Your task to perform on an android device: Add "usb-c to usb-b" to the cart on newegg Image 0: 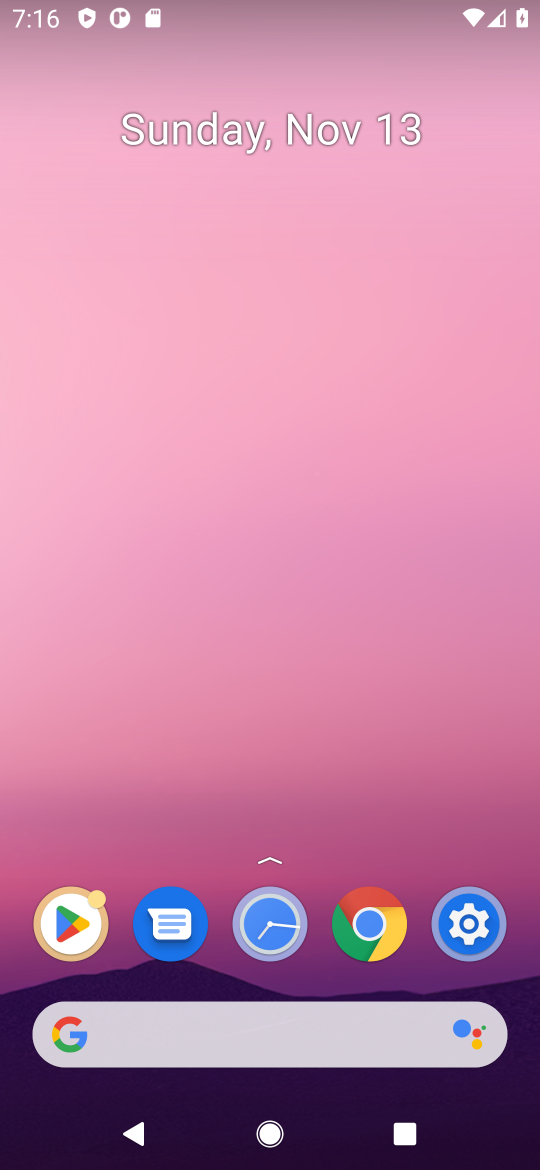
Step 0: click (345, 917)
Your task to perform on an android device: Add "usb-c to usb-b" to the cart on newegg Image 1: 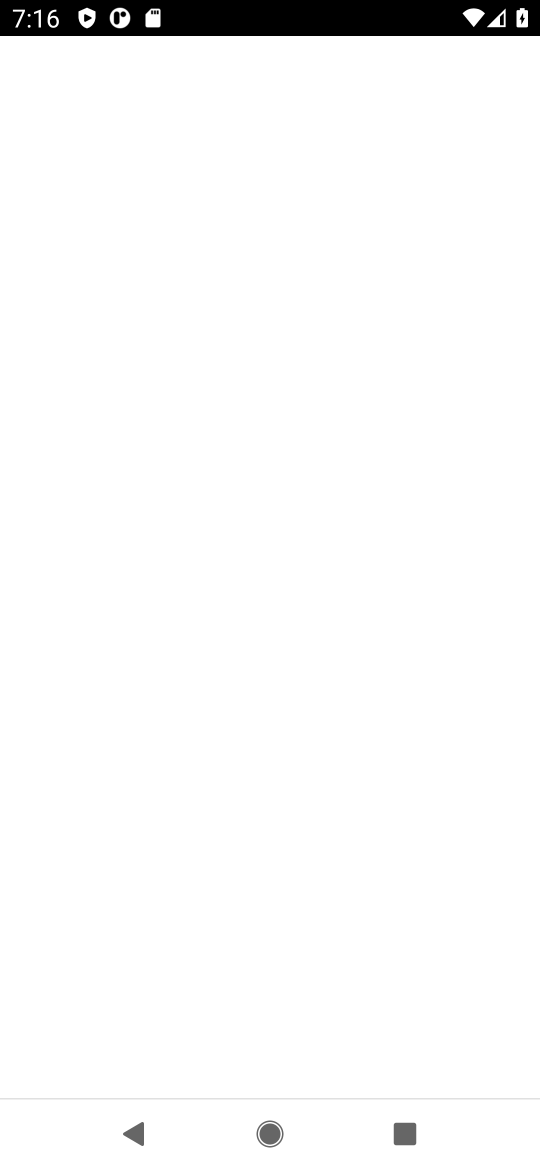
Step 1: click (343, 919)
Your task to perform on an android device: Add "usb-c to usb-b" to the cart on newegg Image 2: 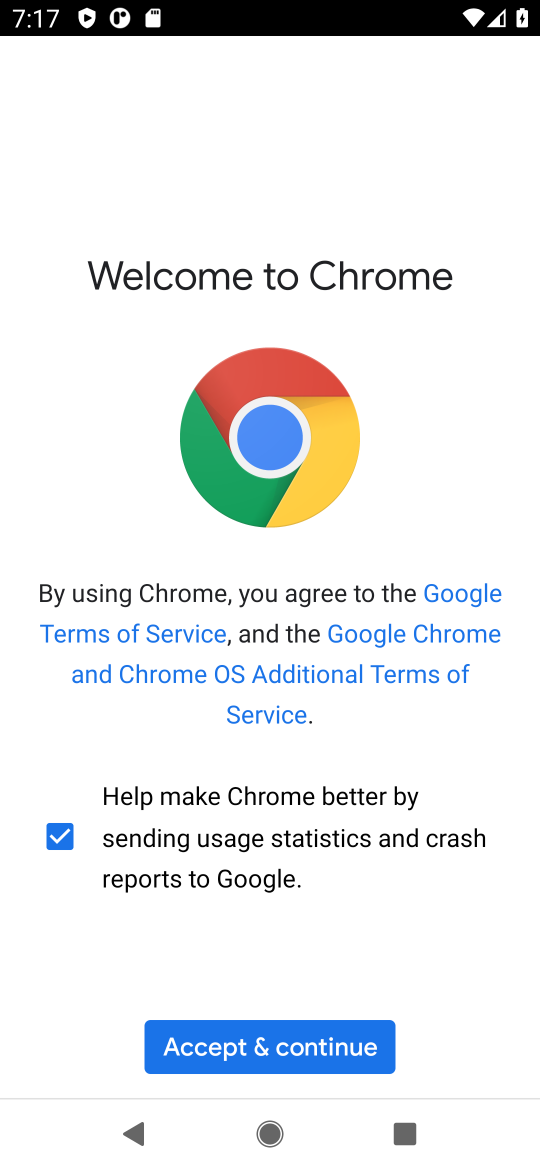
Step 2: click (247, 1036)
Your task to perform on an android device: Add "usb-c to usb-b" to the cart on newegg Image 3: 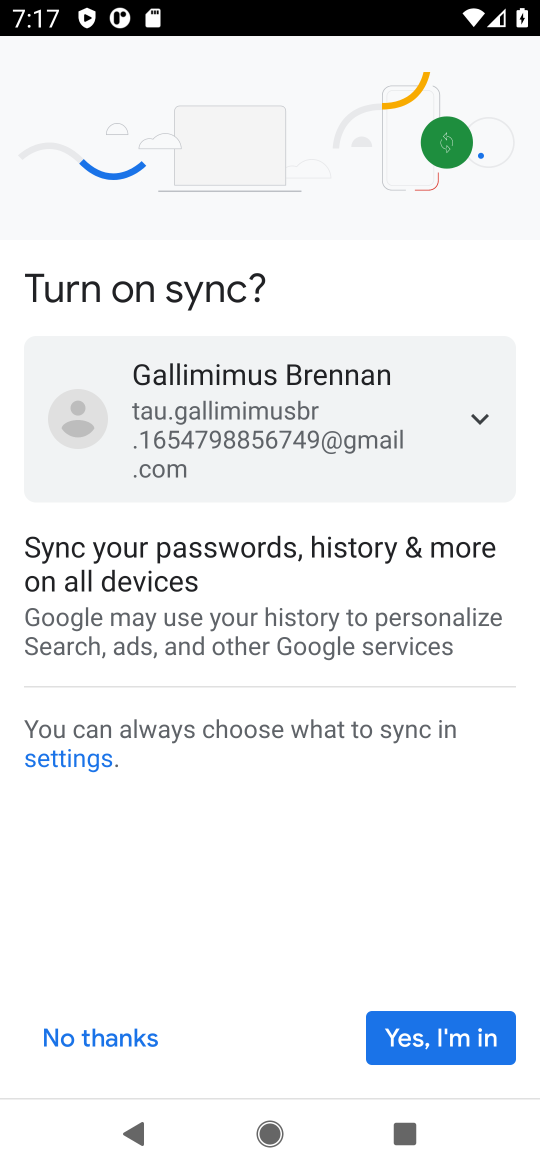
Step 3: click (421, 1039)
Your task to perform on an android device: Add "usb-c to usb-b" to the cart on newegg Image 4: 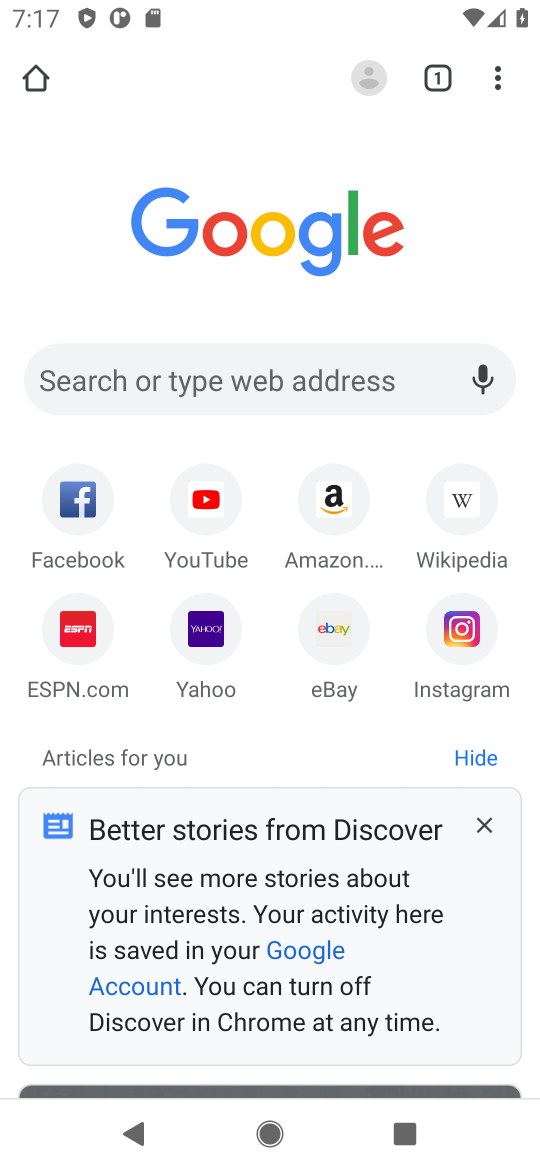
Step 4: click (214, 374)
Your task to perform on an android device: Add "usb-c to usb-b" to the cart on newegg Image 5: 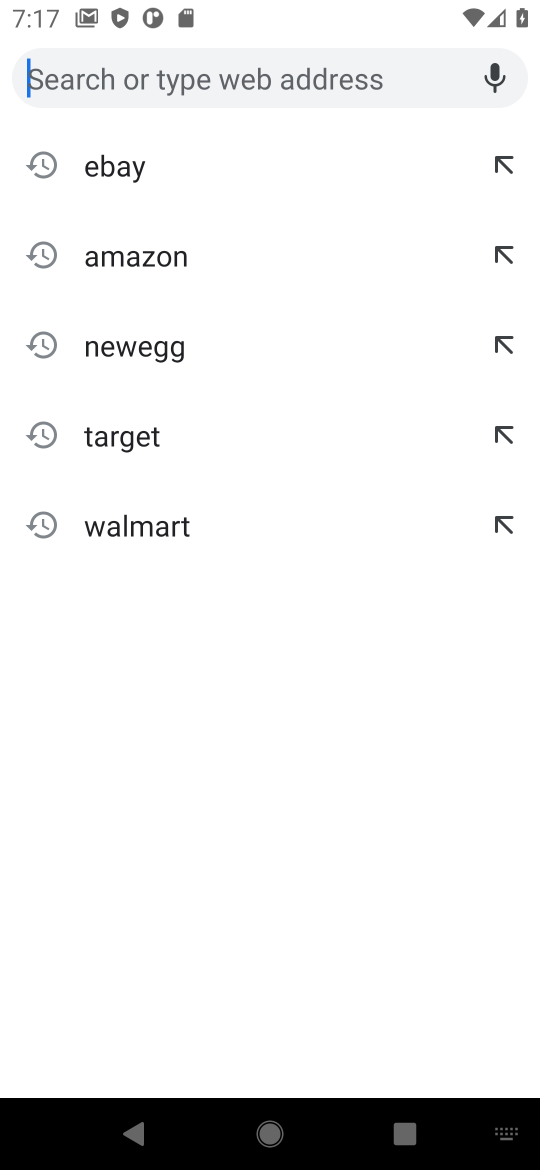
Step 5: click (130, 345)
Your task to perform on an android device: Add "usb-c to usb-b" to the cart on newegg Image 6: 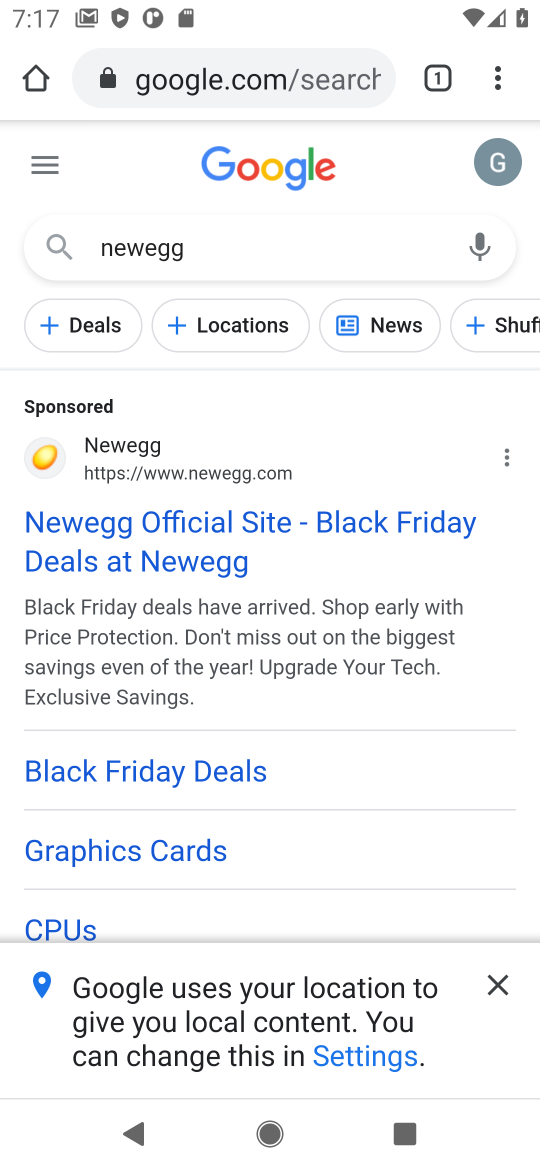
Step 6: click (502, 974)
Your task to perform on an android device: Add "usb-c to usb-b" to the cart on newegg Image 7: 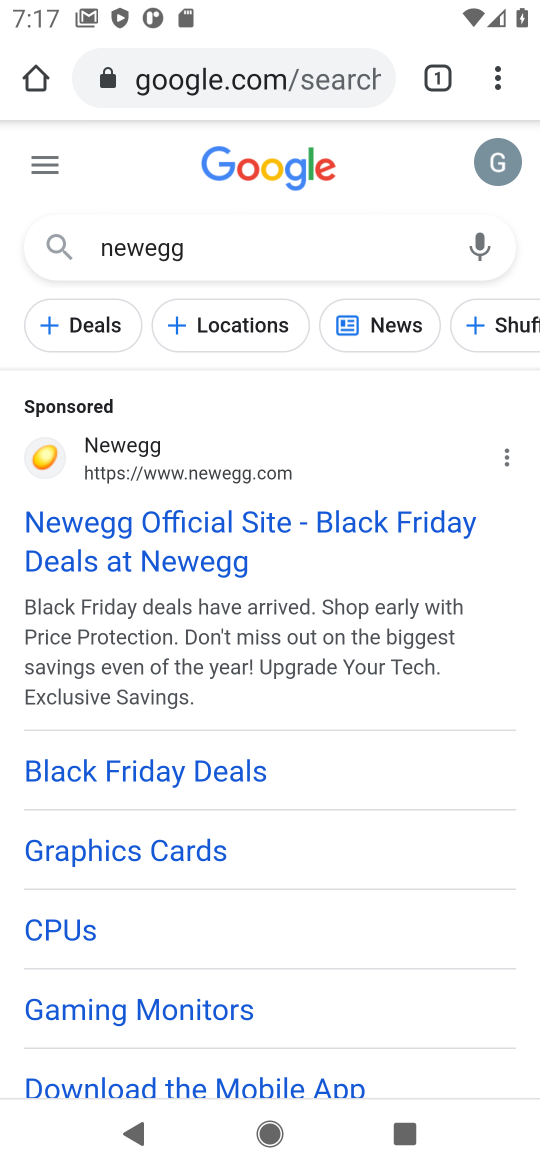
Step 7: drag from (230, 751) to (336, 181)
Your task to perform on an android device: Add "usb-c to usb-b" to the cart on newegg Image 8: 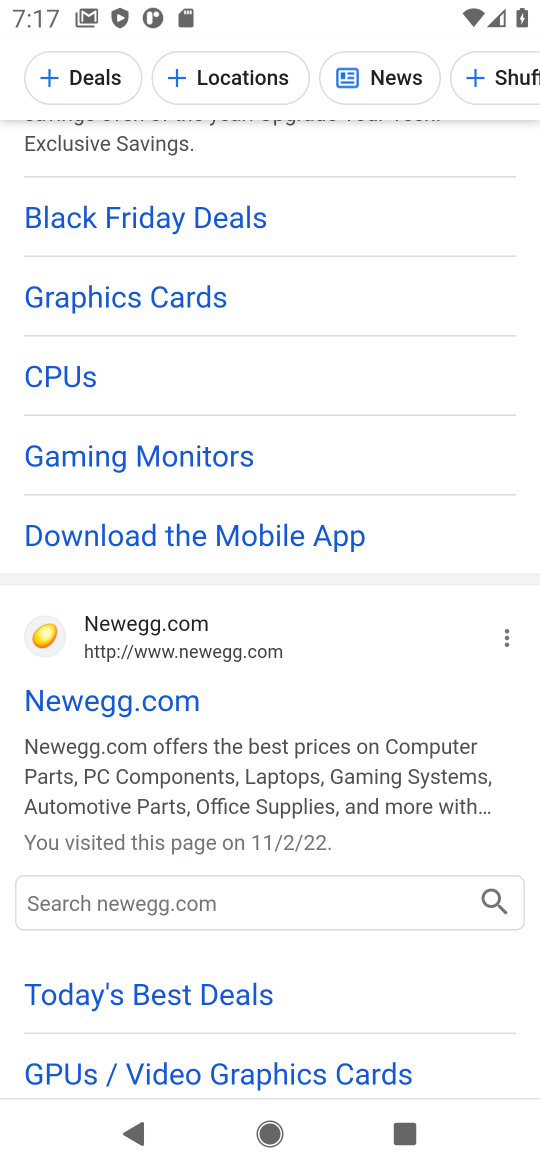
Step 8: click (124, 697)
Your task to perform on an android device: Add "usb-c to usb-b" to the cart on newegg Image 9: 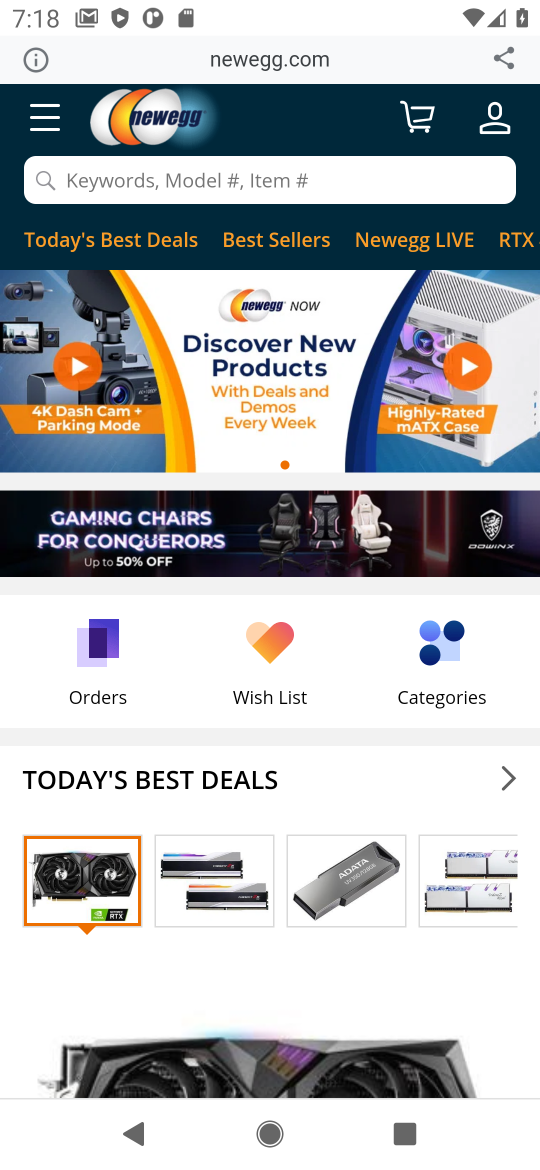
Step 9: click (204, 170)
Your task to perform on an android device: Add "usb-c to usb-b" to the cart on newegg Image 10: 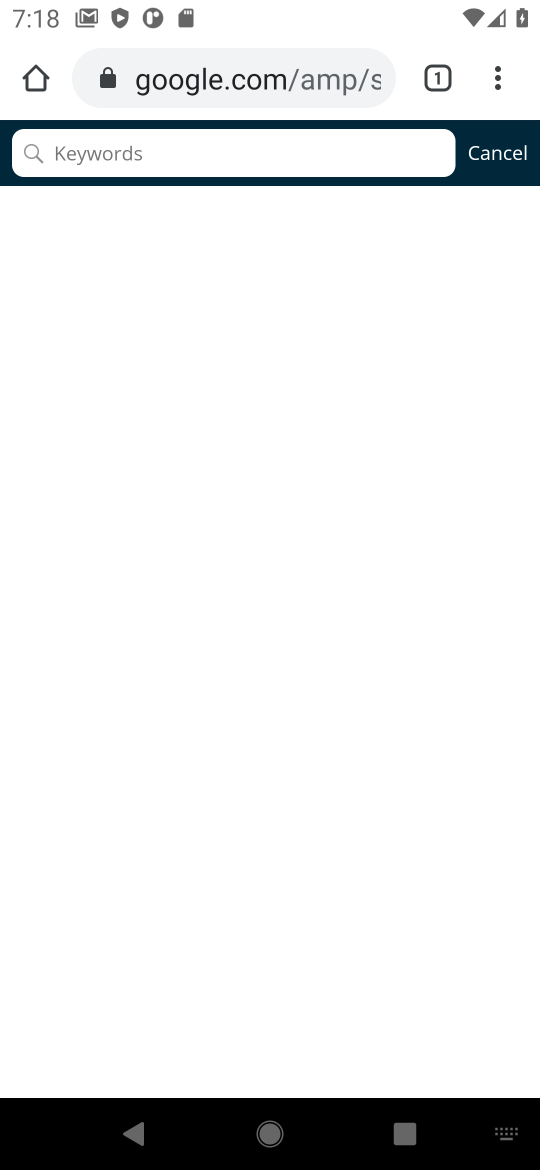
Step 10: type "usb-c to usb-b"
Your task to perform on an android device: Add "usb-c to usb-b" to the cart on newegg Image 11: 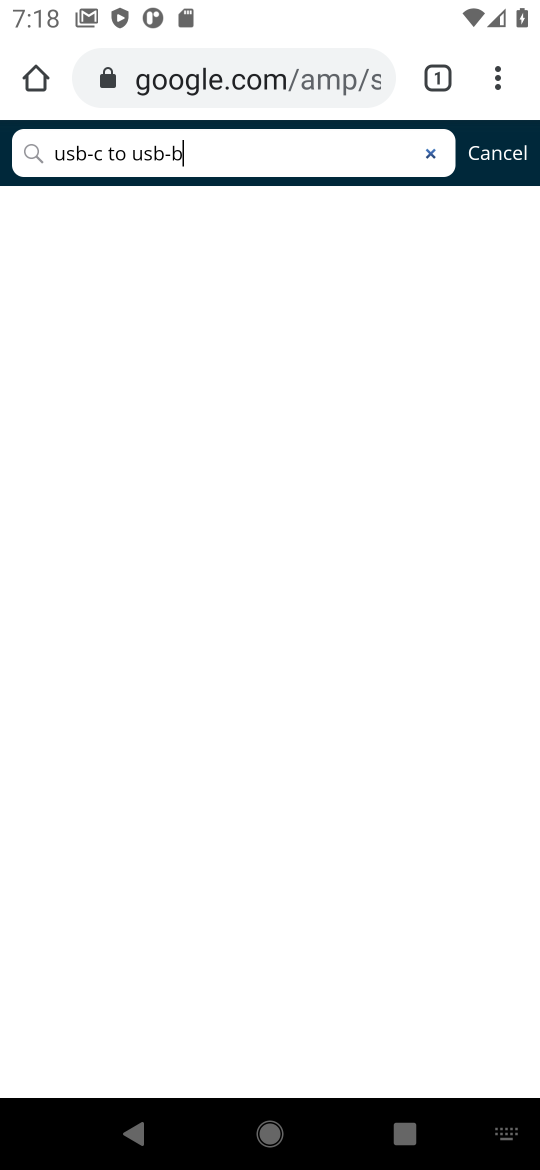
Step 11: press enter
Your task to perform on an android device: Add "usb-c to usb-b" to the cart on newegg Image 12: 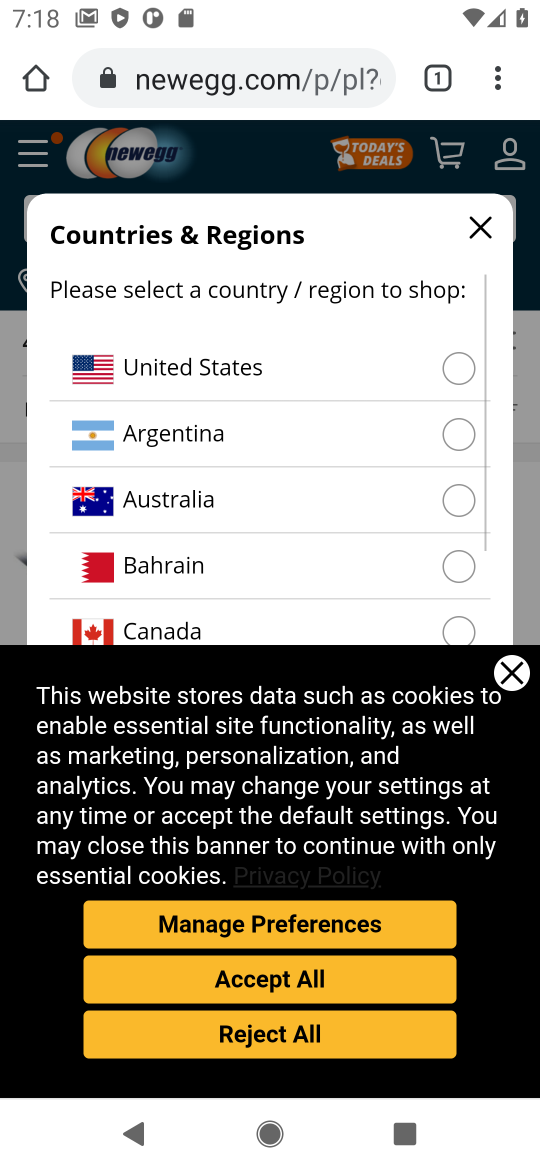
Step 12: click (521, 662)
Your task to perform on an android device: Add "usb-c to usb-b" to the cart on newegg Image 13: 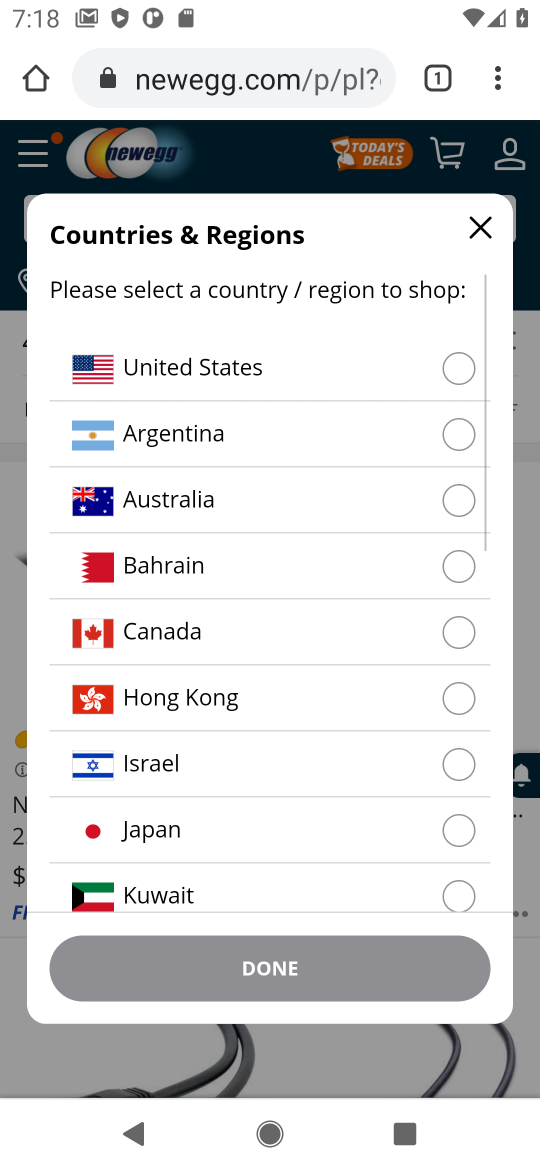
Step 13: click (482, 214)
Your task to perform on an android device: Add "usb-c to usb-b" to the cart on newegg Image 14: 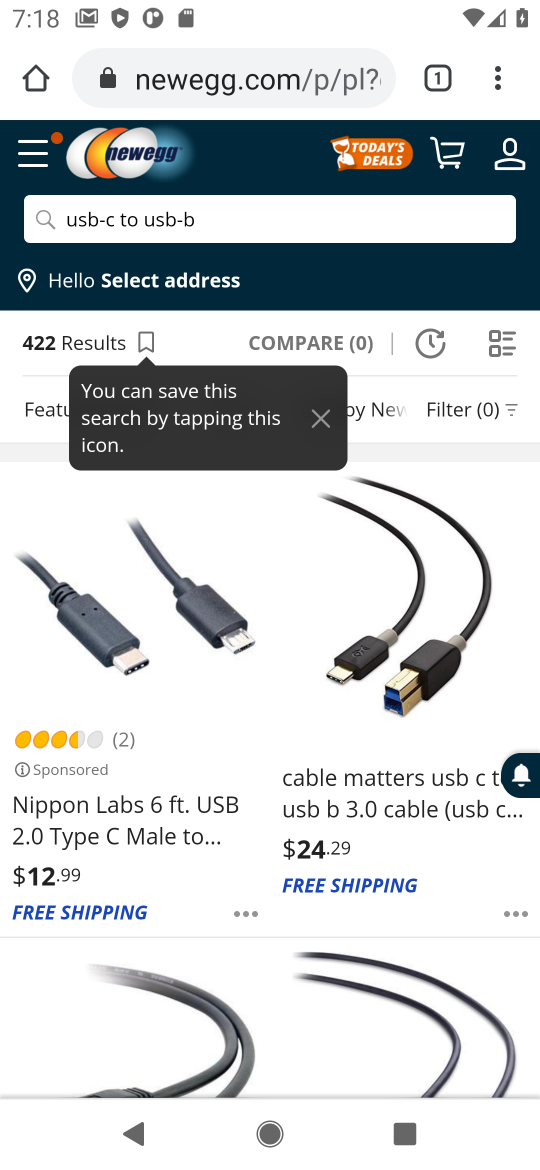
Step 14: click (383, 803)
Your task to perform on an android device: Add "usb-c to usb-b" to the cart on newegg Image 15: 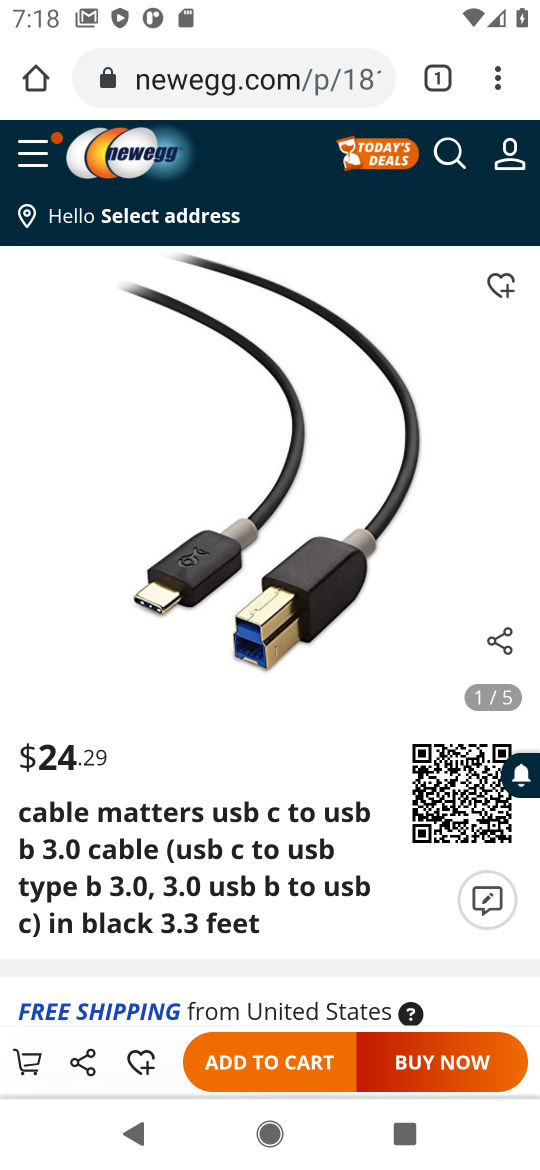
Step 15: click (264, 1054)
Your task to perform on an android device: Add "usb-c to usb-b" to the cart on newegg Image 16: 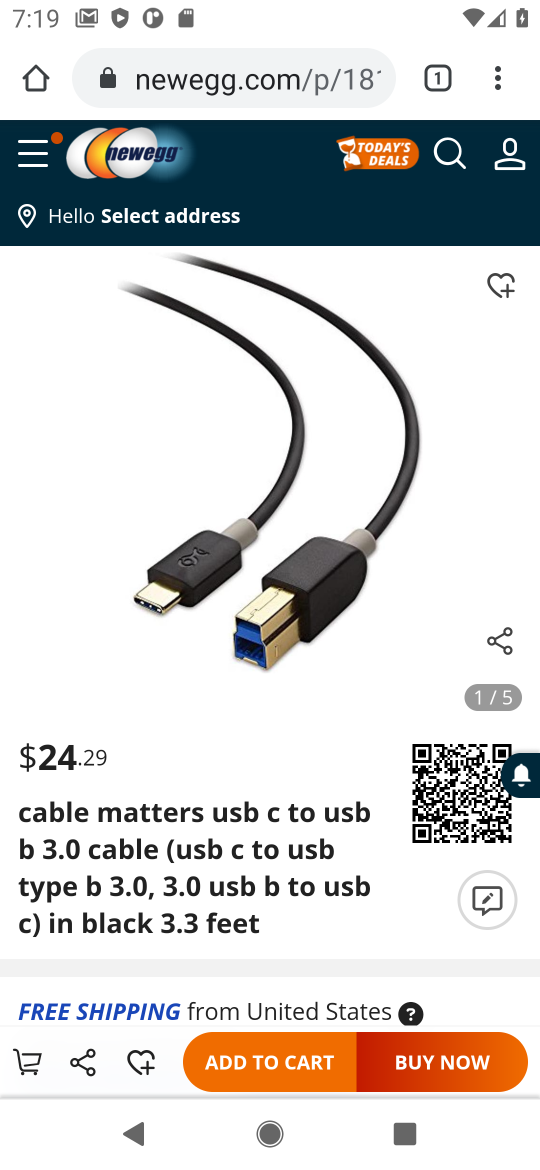
Step 16: click (283, 1062)
Your task to perform on an android device: Add "usb-c to usb-b" to the cart on newegg Image 17: 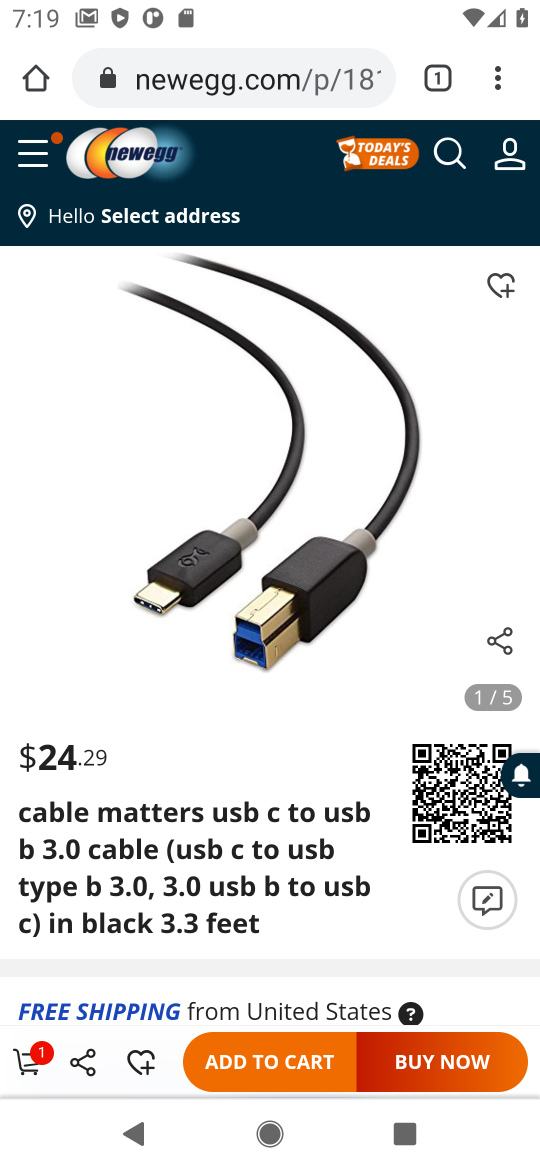
Step 17: click (38, 1052)
Your task to perform on an android device: Add "usb-c to usb-b" to the cart on newegg Image 18: 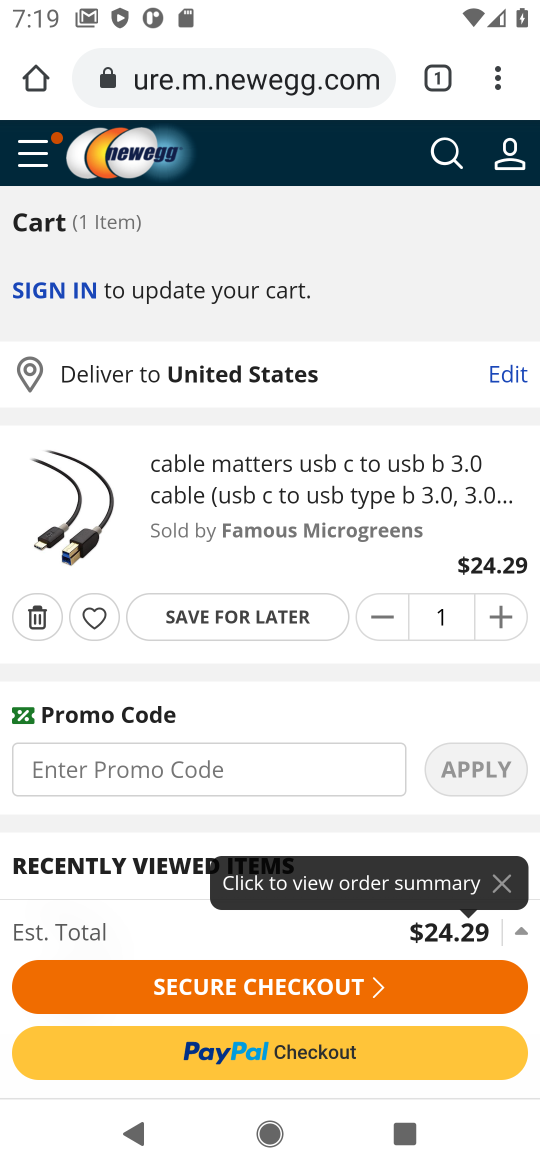
Step 18: task complete